Your task to perform on an android device: Is it going to rain today? Image 0: 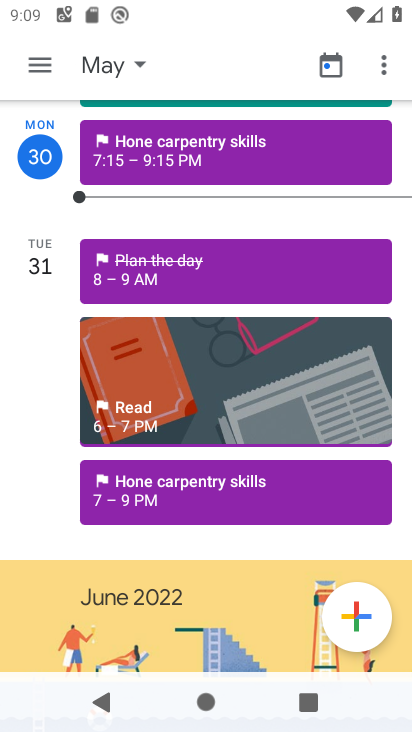
Step 0: press home button
Your task to perform on an android device: Is it going to rain today? Image 1: 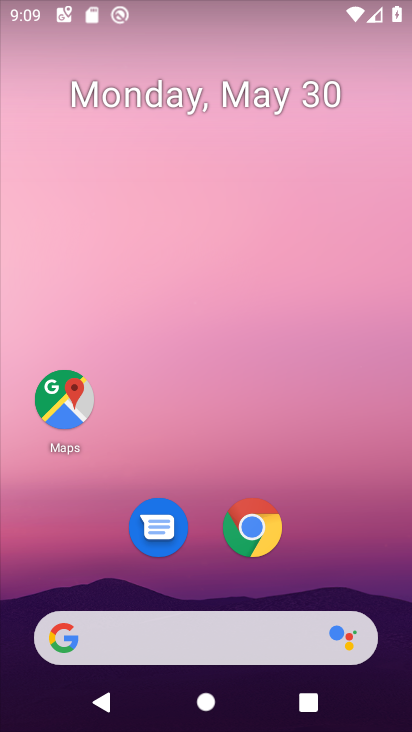
Step 1: drag from (1, 282) to (411, 282)
Your task to perform on an android device: Is it going to rain today? Image 2: 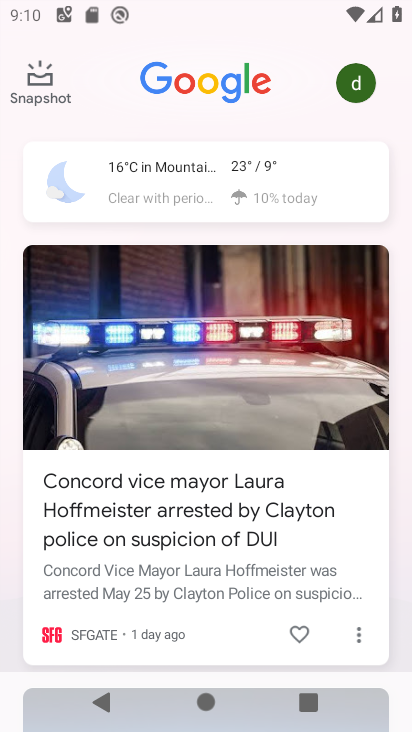
Step 2: click (226, 206)
Your task to perform on an android device: Is it going to rain today? Image 3: 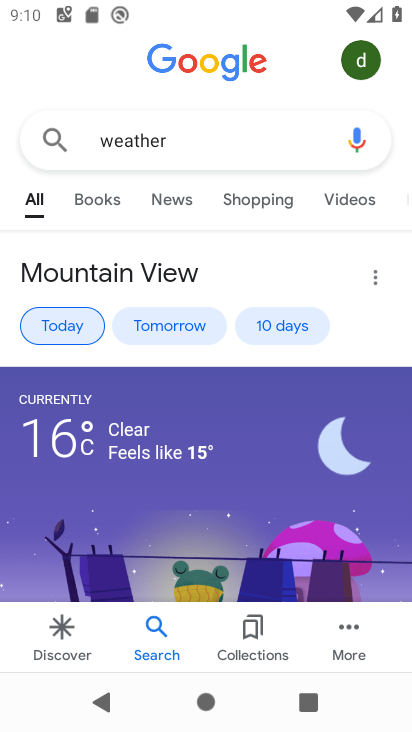
Step 3: task complete